Your task to perform on an android device: turn off javascript in the chrome app Image 0: 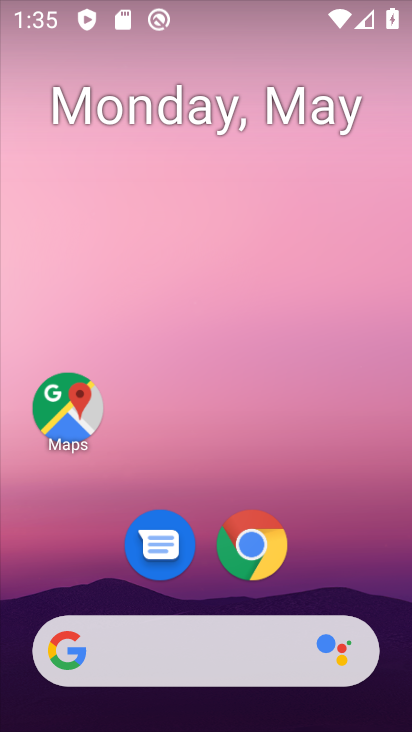
Step 0: click (245, 543)
Your task to perform on an android device: turn off javascript in the chrome app Image 1: 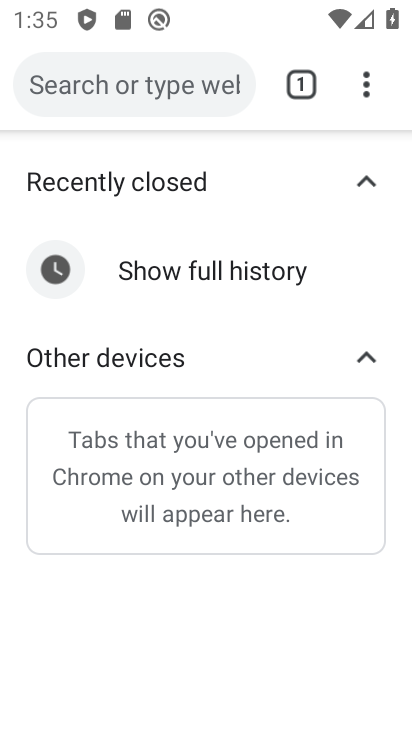
Step 1: click (366, 90)
Your task to perform on an android device: turn off javascript in the chrome app Image 2: 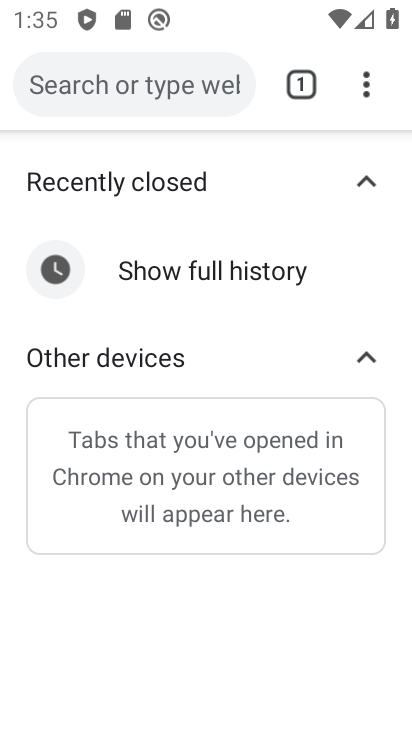
Step 2: click (375, 83)
Your task to perform on an android device: turn off javascript in the chrome app Image 3: 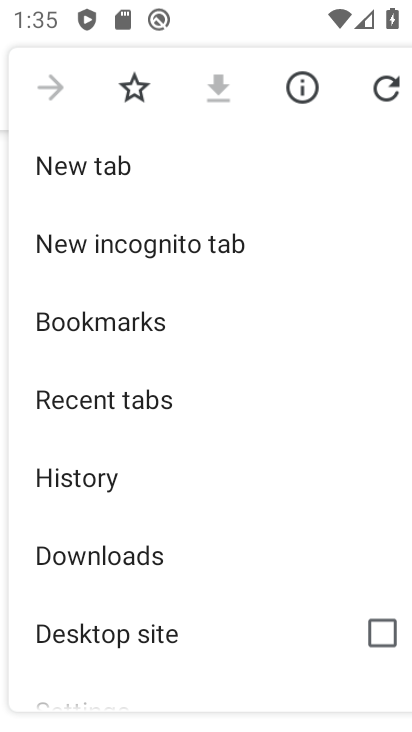
Step 3: drag from (147, 561) to (235, 50)
Your task to perform on an android device: turn off javascript in the chrome app Image 4: 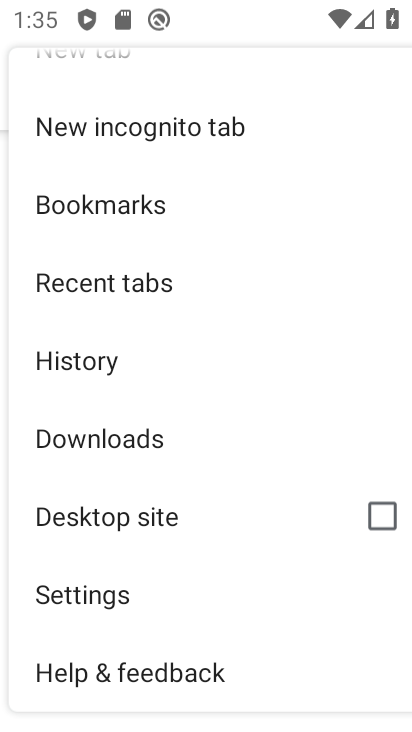
Step 4: click (104, 584)
Your task to perform on an android device: turn off javascript in the chrome app Image 5: 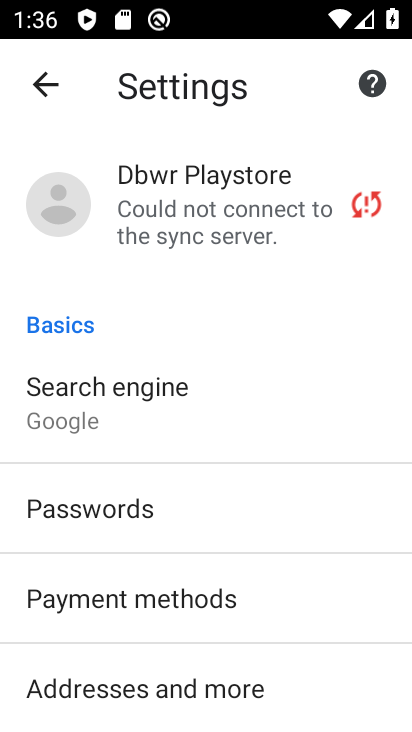
Step 5: drag from (193, 684) to (268, 190)
Your task to perform on an android device: turn off javascript in the chrome app Image 6: 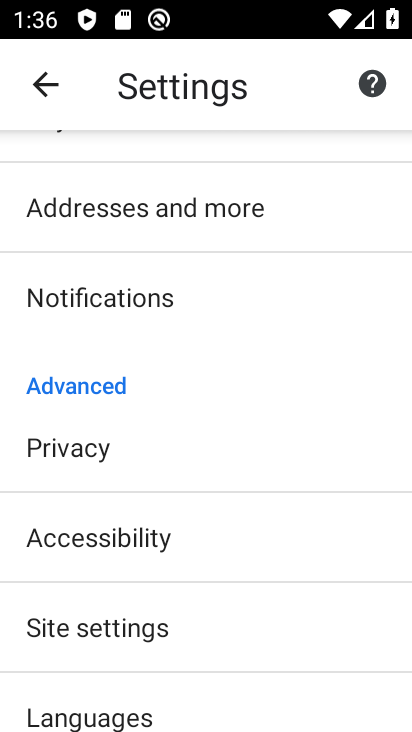
Step 6: click (116, 627)
Your task to perform on an android device: turn off javascript in the chrome app Image 7: 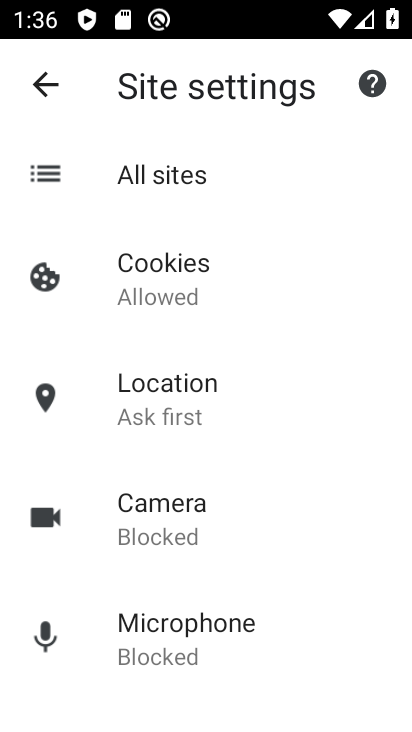
Step 7: drag from (232, 612) to (244, 145)
Your task to perform on an android device: turn off javascript in the chrome app Image 8: 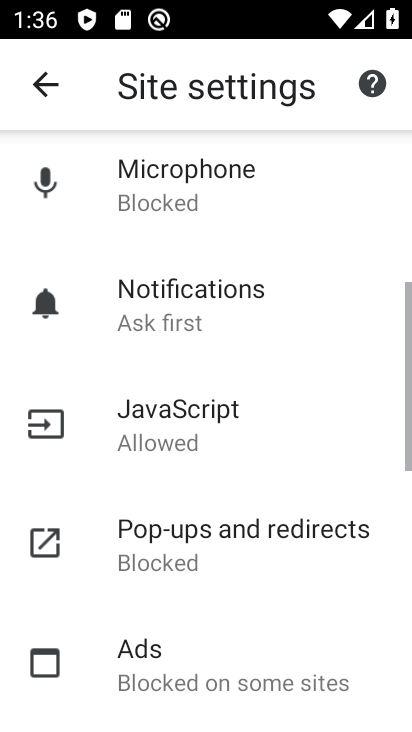
Step 8: click (201, 425)
Your task to perform on an android device: turn off javascript in the chrome app Image 9: 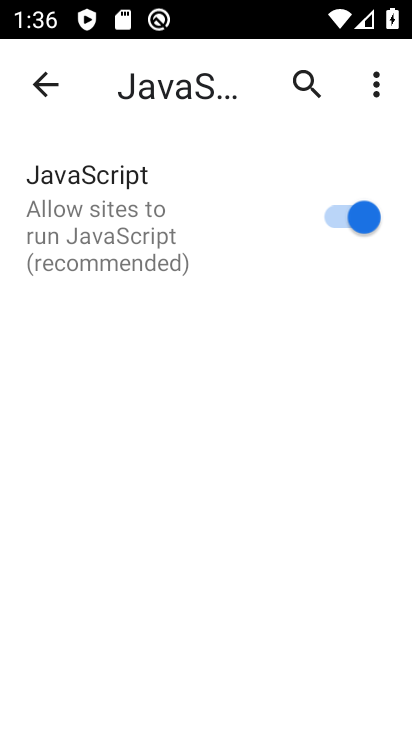
Step 9: click (362, 204)
Your task to perform on an android device: turn off javascript in the chrome app Image 10: 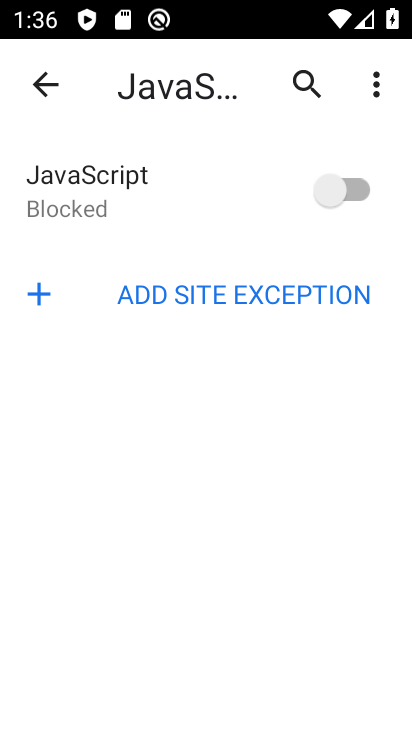
Step 10: task complete